Your task to perform on an android device: delete browsing data in the chrome app Image 0: 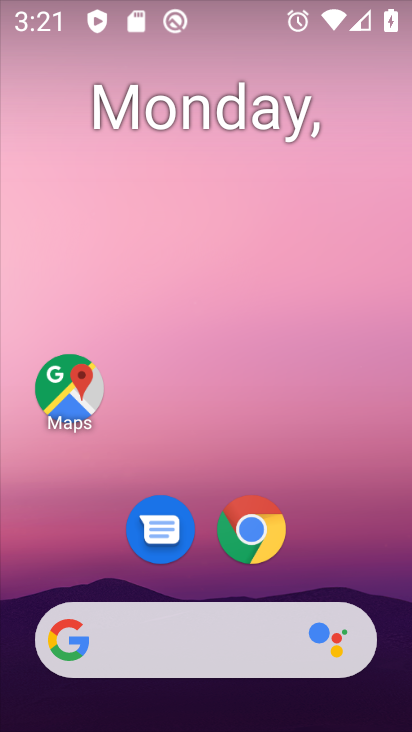
Step 0: click (249, 520)
Your task to perform on an android device: delete browsing data in the chrome app Image 1: 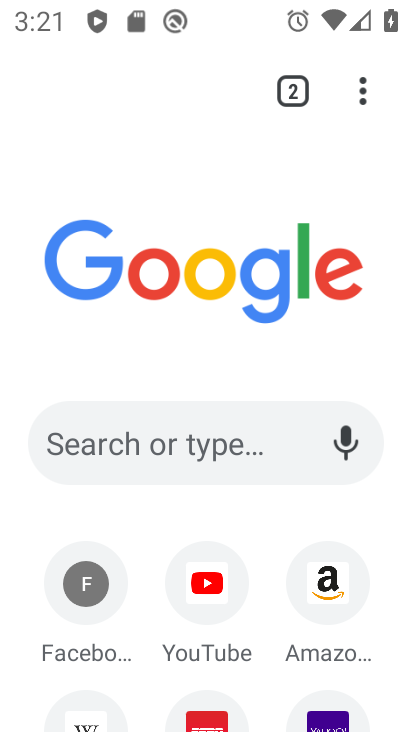
Step 1: click (364, 82)
Your task to perform on an android device: delete browsing data in the chrome app Image 2: 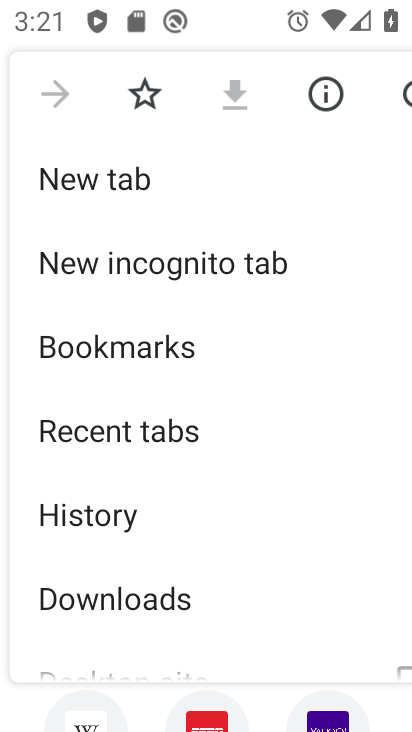
Step 2: click (107, 525)
Your task to perform on an android device: delete browsing data in the chrome app Image 3: 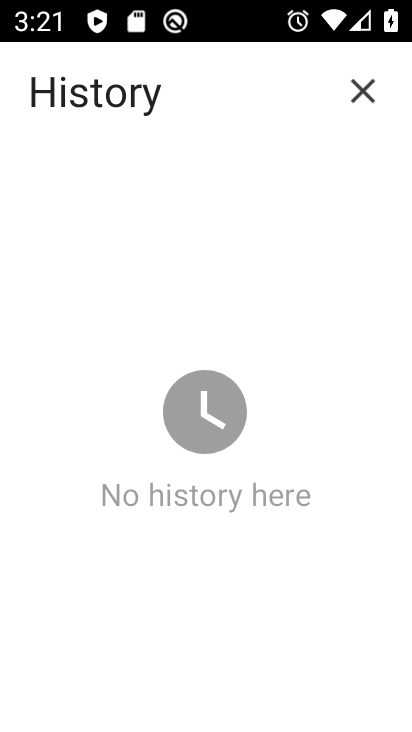
Step 3: task complete